Your task to perform on an android device: What's on my calendar tomorrow? Image 0: 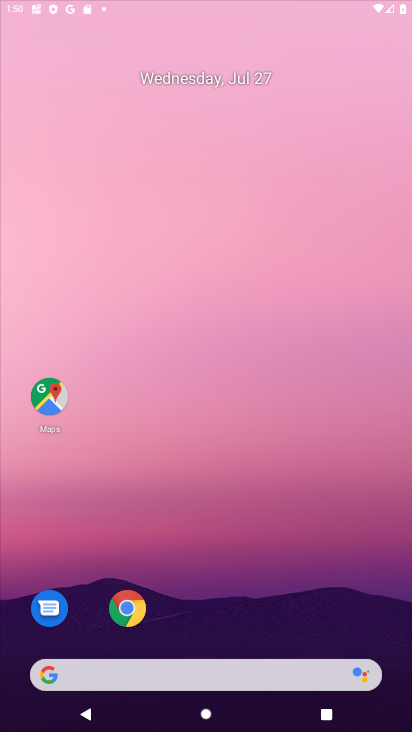
Step 0: press home button
Your task to perform on an android device: What's on my calendar tomorrow? Image 1: 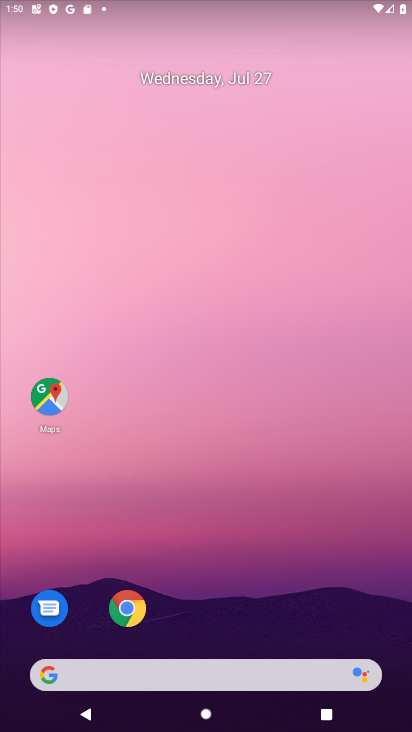
Step 1: drag from (44, 703) to (252, 123)
Your task to perform on an android device: What's on my calendar tomorrow? Image 2: 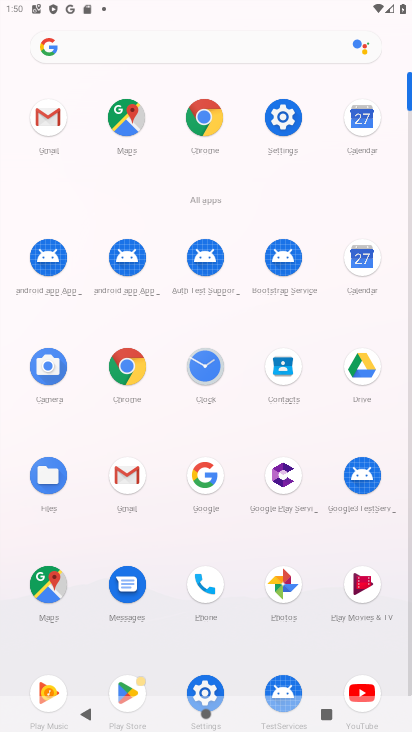
Step 2: click (369, 260)
Your task to perform on an android device: What's on my calendar tomorrow? Image 3: 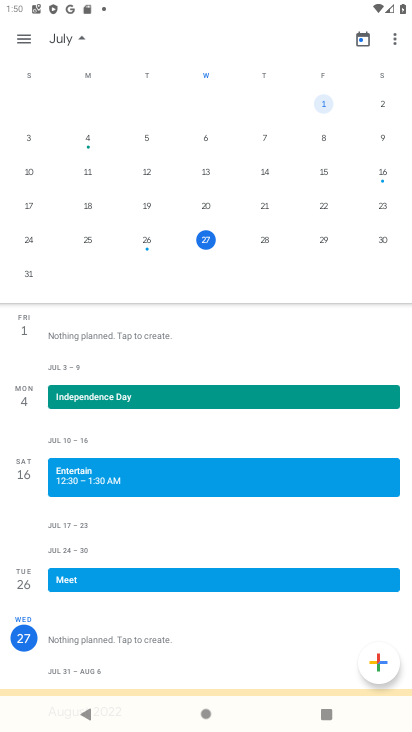
Step 3: task complete